Your task to perform on an android device: open device folders in google photos Image 0: 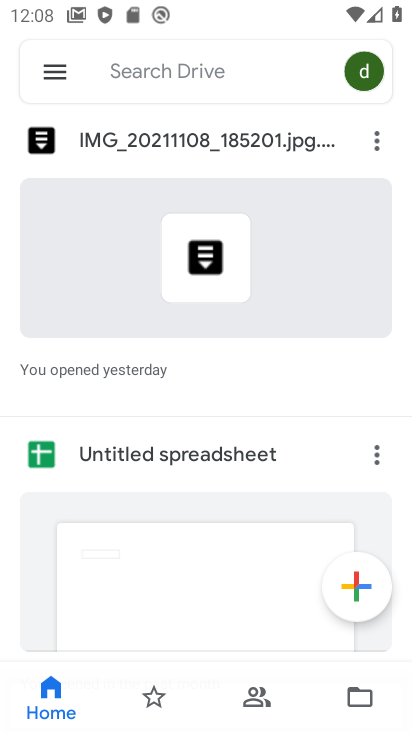
Step 0: press home button
Your task to perform on an android device: open device folders in google photos Image 1: 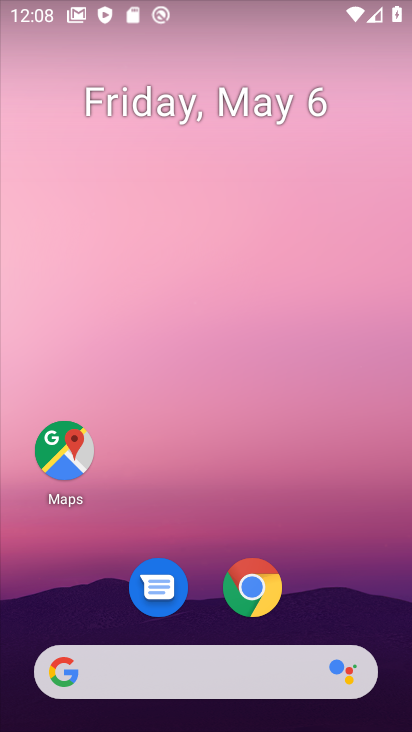
Step 1: drag from (11, 664) to (156, 250)
Your task to perform on an android device: open device folders in google photos Image 2: 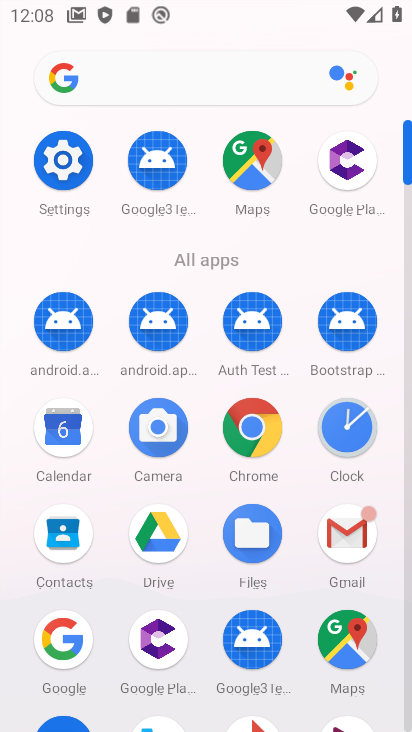
Step 2: drag from (13, 594) to (139, 257)
Your task to perform on an android device: open device folders in google photos Image 3: 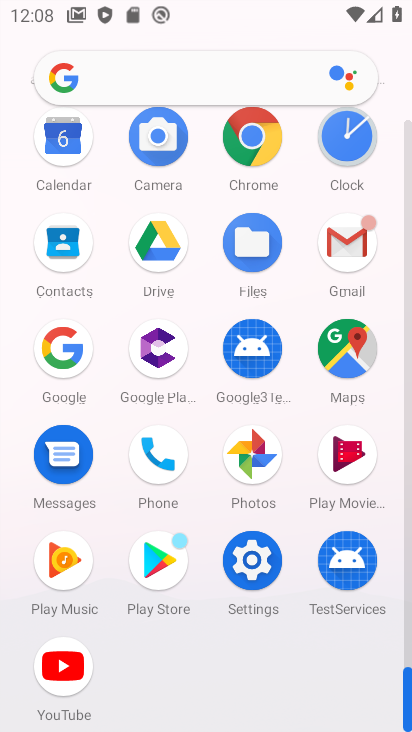
Step 3: click (238, 450)
Your task to perform on an android device: open device folders in google photos Image 4: 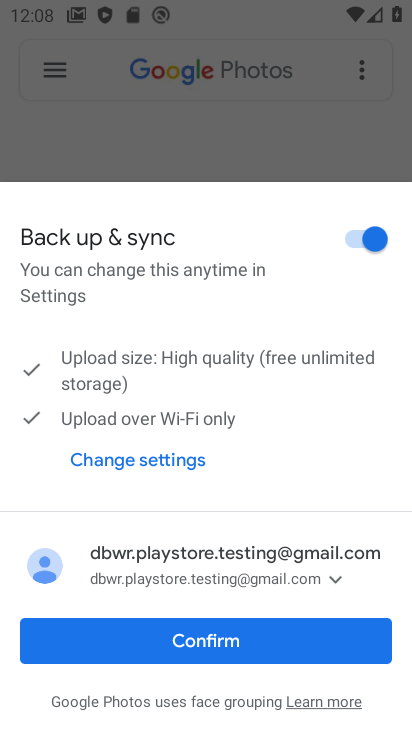
Step 4: click (211, 645)
Your task to perform on an android device: open device folders in google photos Image 5: 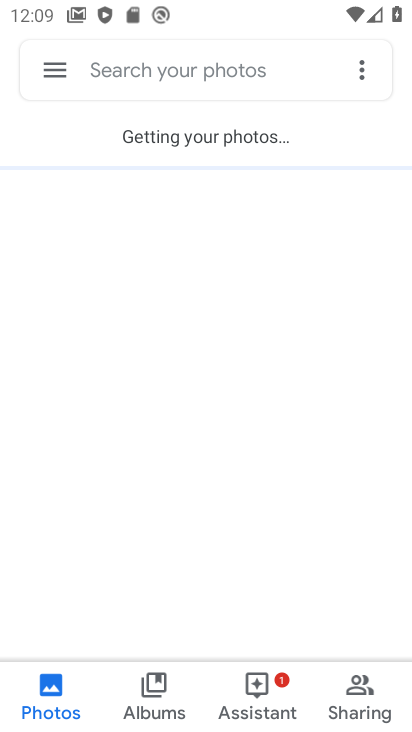
Step 5: task complete